Your task to perform on an android device: change the clock style Image 0: 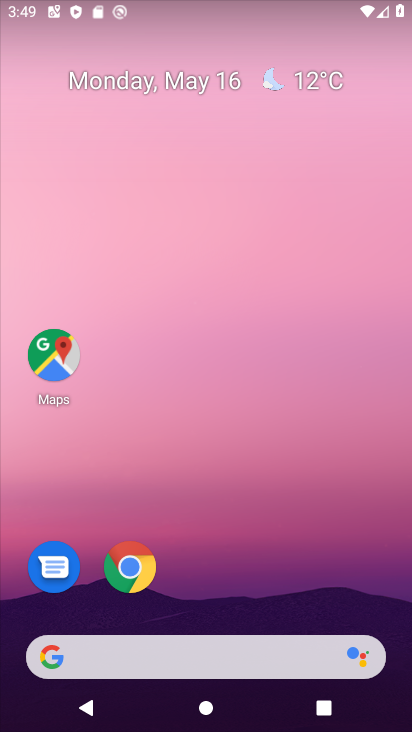
Step 0: drag from (240, 540) to (195, 24)
Your task to perform on an android device: change the clock style Image 1: 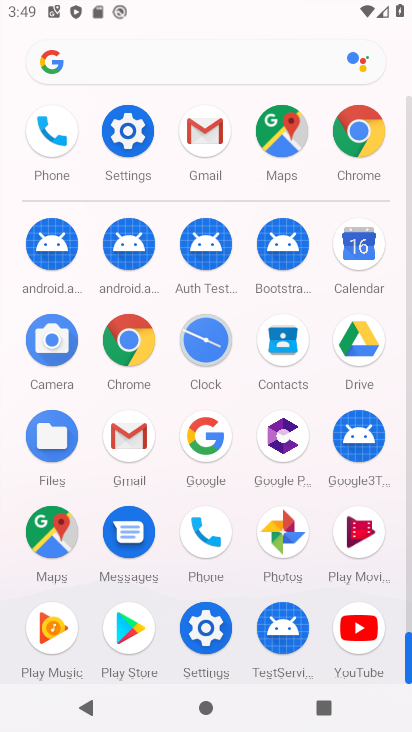
Step 1: drag from (8, 525) to (0, 207)
Your task to perform on an android device: change the clock style Image 2: 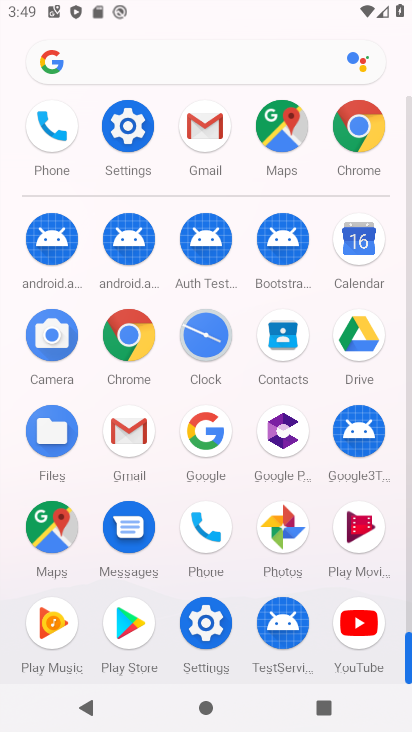
Step 2: click (204, 334)
Your task to perform on an android device: change the clock style Image 3: 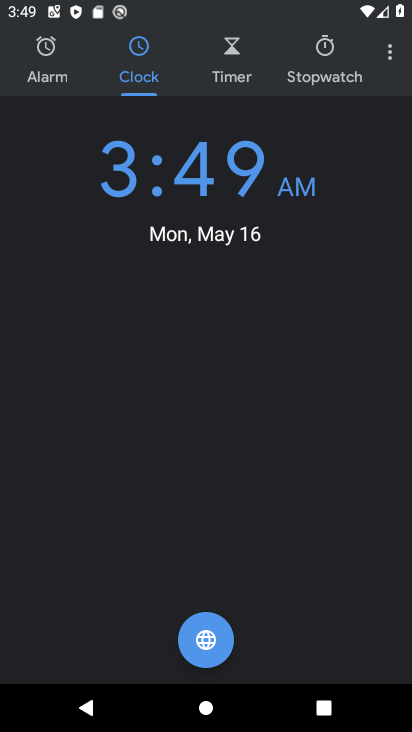
Step 3: drag from (390, 51) to (337, 95)
Your task to perform on an android device: change the clock style Image 4: 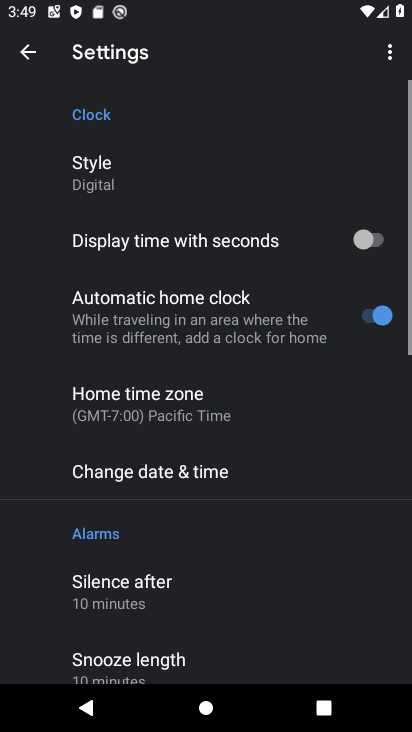
Step 4: click (181, 160)
Your task to perform on an android device: change the clock style Image 5: 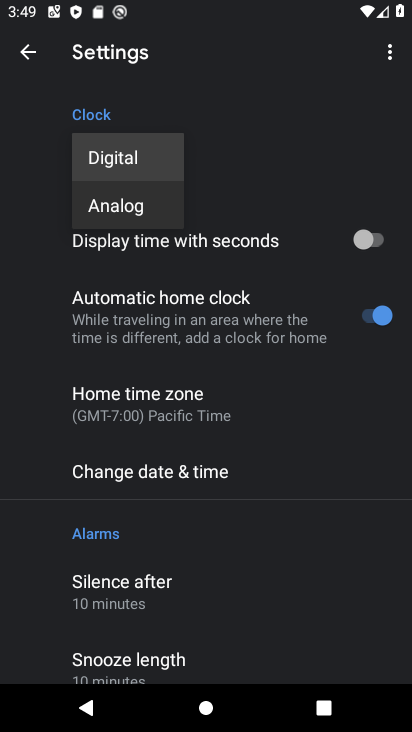
Step 5: click (138, 212)
Your task to perform on an android device: change the clock style Image 6: 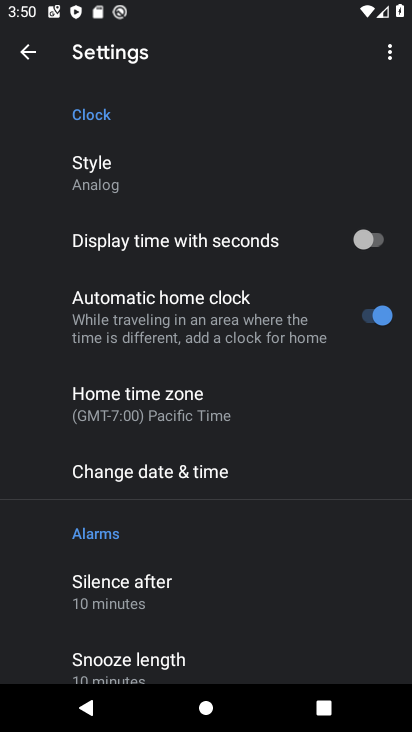
Step 6: task complete